Your task to perform on an android device: Show me recent news Image 0: 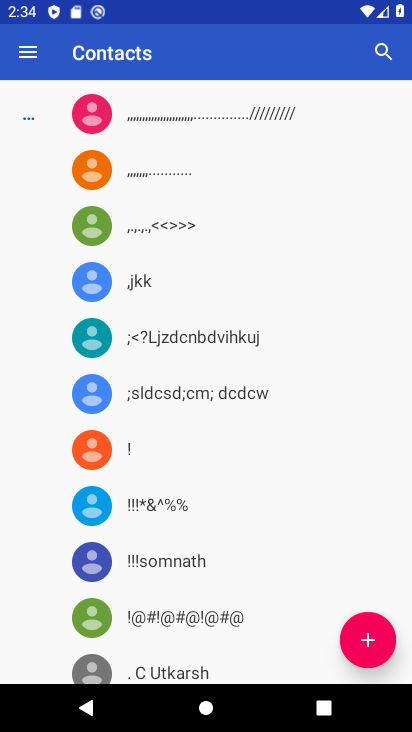
Step 0: press home button
Your task to perform on an android device: Show me recent news Image 1: 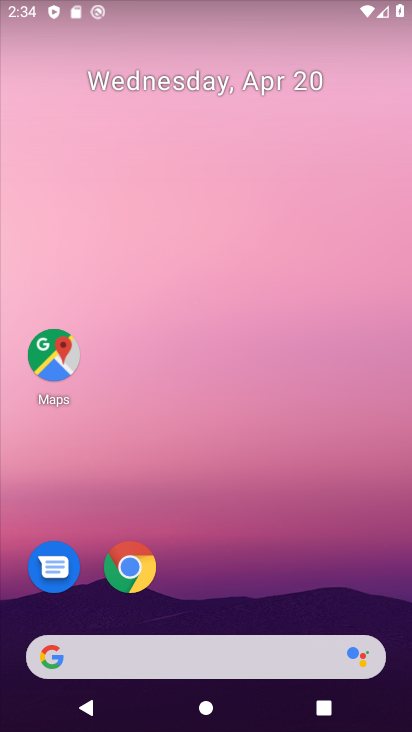
Step 1: drag from (206, 601) to (206, 119)
Your task to perform on an android device: Show me recent news Image 2: 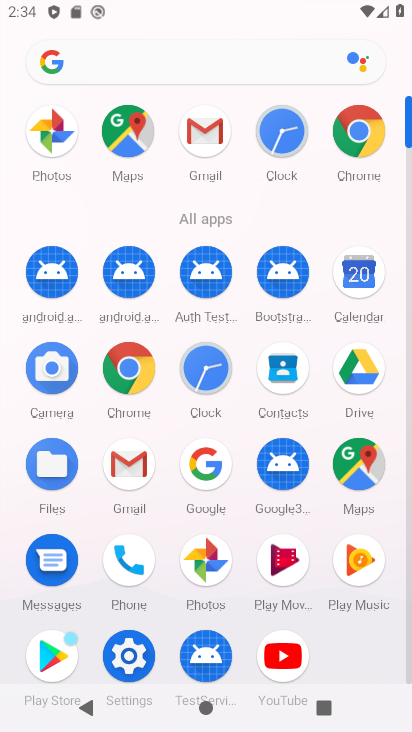
Step 2: click (188, 479)
Your task to perform on an android device: Show me recent news Image 3: 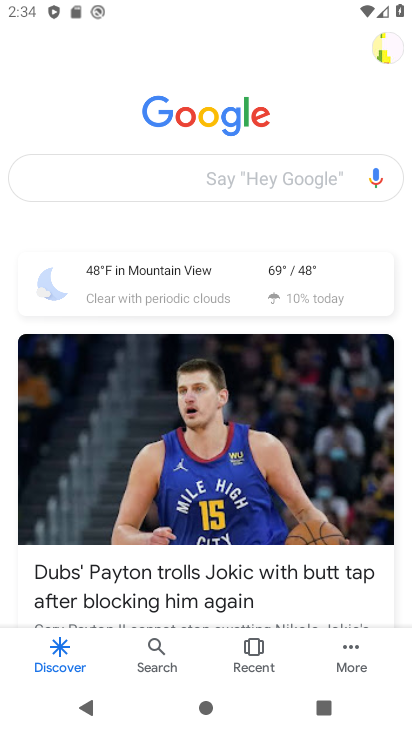
Step 3: task complete